Your task to perform on an android device: remove spam from my inbox in the gmail app Image 0: 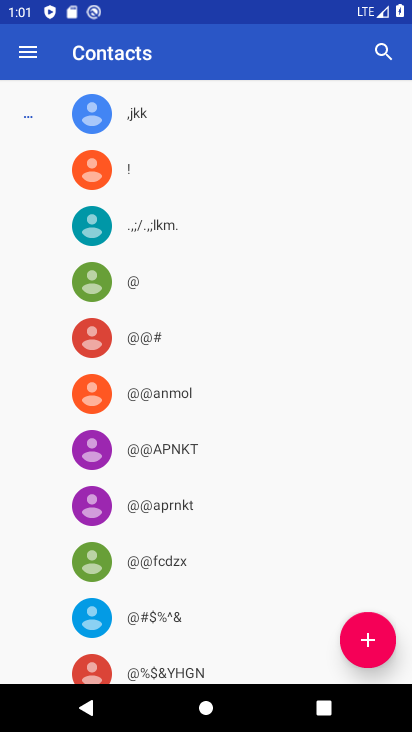
Step 0: press home button
Your task to perform on an android device: remove spam from my inbox in the gmail app Image 1: 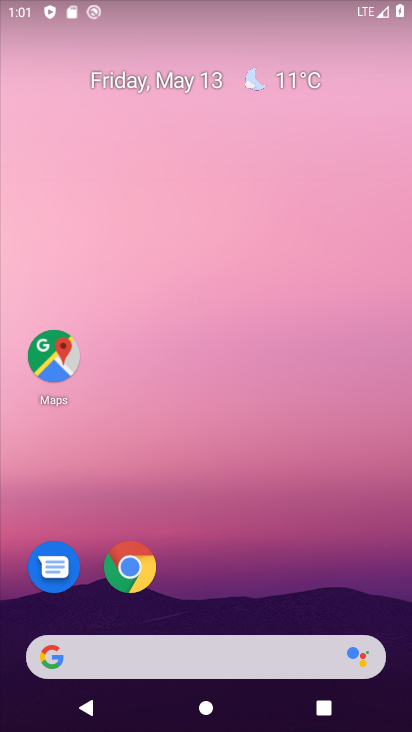
Step 1: drag from (203, 618) to (253, 55)
Your task to perform on an android device: remove spam from my inbox in the gmail app Image 2: 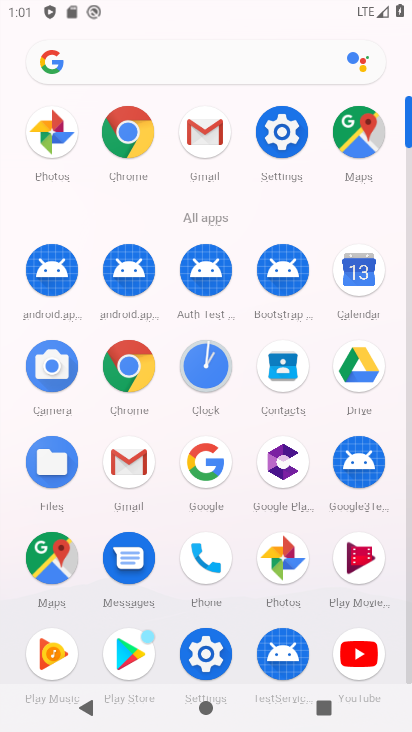
Step 2: click (121, 461)
Your task to perform on an android device: remove spam from my inbox in the gmail app Image 3: 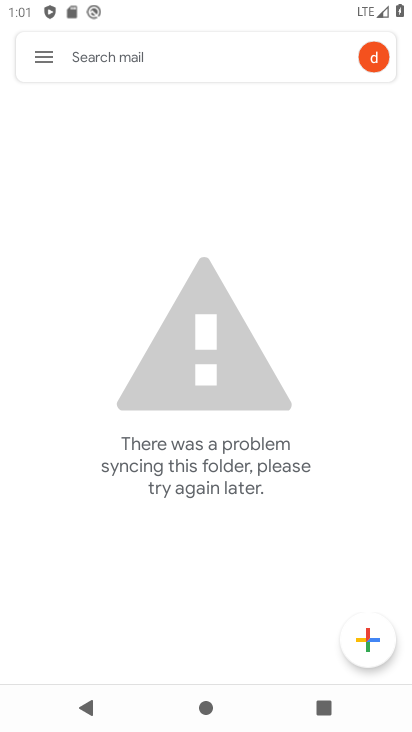
Step 3: click (37, 54)
Your task to perform on an android device: remove spam from my inbox in the gmail app Image 4: 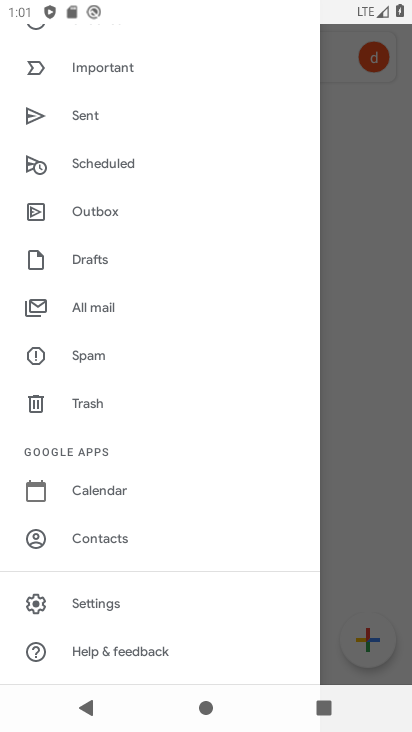
Step 4: click (57, 349)
Your task to perform on an android device: remove spam from my inbox in the gmail app Image 5: 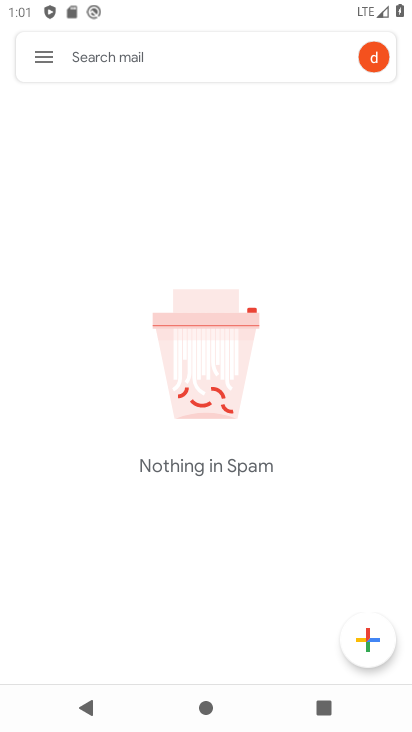
Step 5: task complete